Your task to perform on an android device: turn off location Image 0: 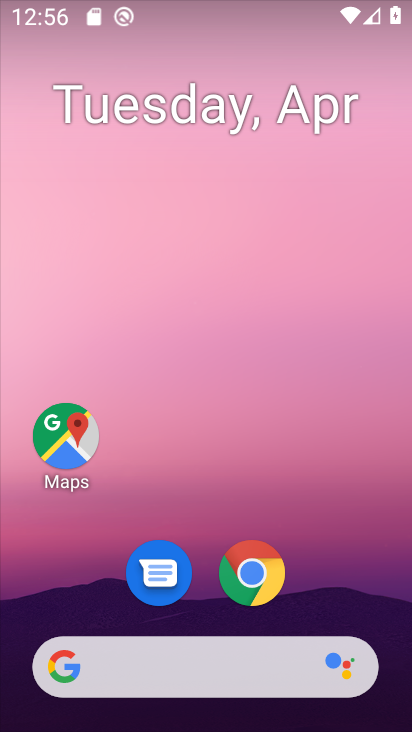
Step 0: drag from (195, 518) to (289, 101)
Your task to perform on an android device: turn off location Image 1: 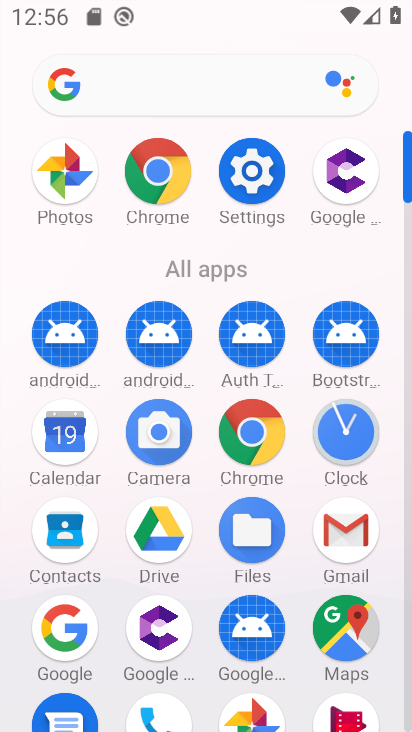
Step 1: click (249, 171)
Your task to perform on an android device: turn off location Image 2: 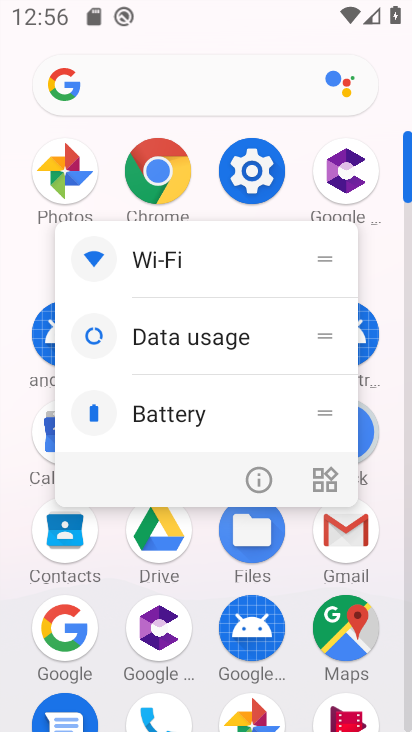
Step 2: click (256, 170)
Your task to perform on an android device: turn off location Image 3: 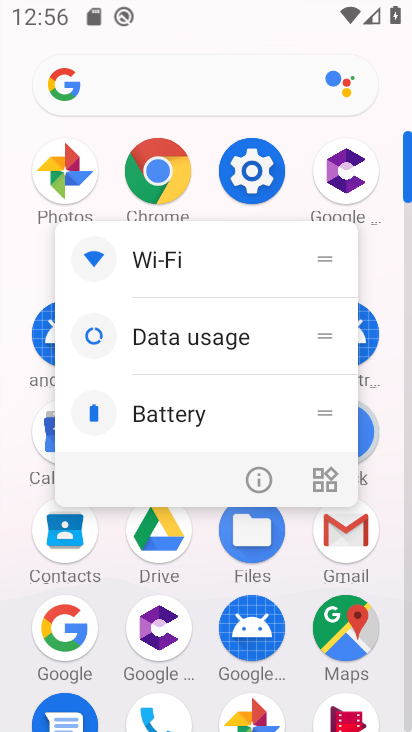
Step 3: click (264, 185)
Your task to perform on an android device: turn off location Image 4: 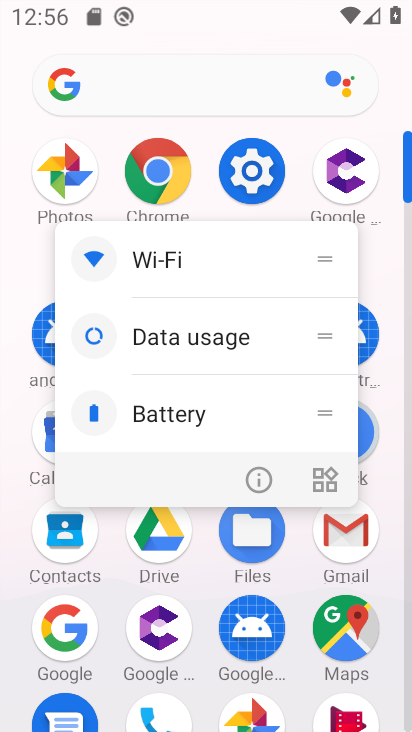
Step 4: click (247, 192)
Your task to perform on an android device: turn off location Image 5: 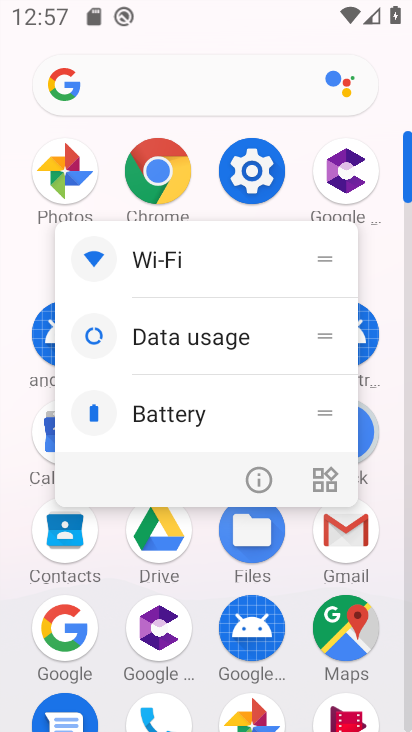
Step 5: click (257, 140)
Your task to perform on an android device: turn off location Image 6: 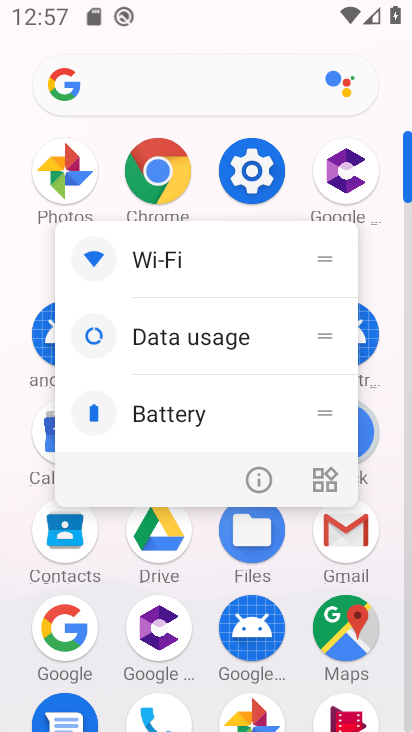
Step 6: click (231, 144)
Your task to perform on an android device: turn off location Image 7: 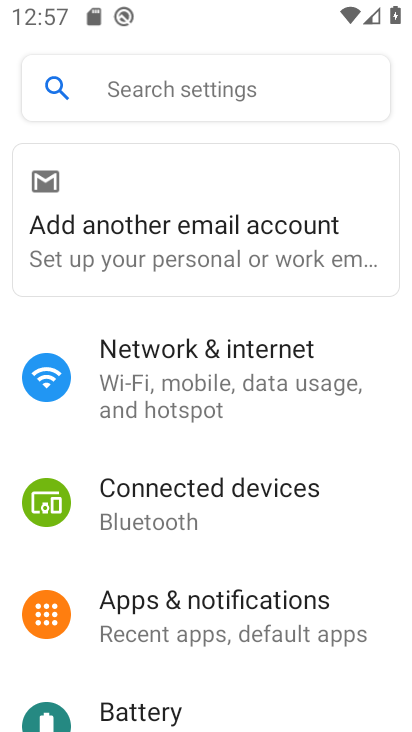
Step 7: drag from (188, 628) to (373, 139)
Your task to perform on an android device: turn off location Image 8: 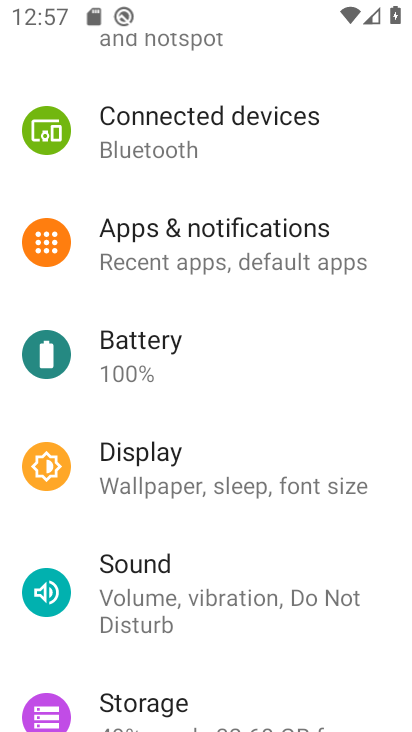
Step 8: drag from (201, 562) to (317, 219)
Your task to perform on an android device: turn off location Image 9: 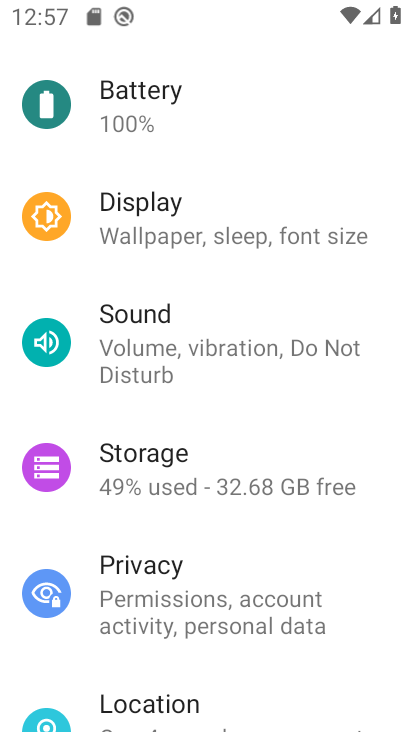
Step 9: click (155, 691)
Your task to perform on an android device: turn off location Image 10: 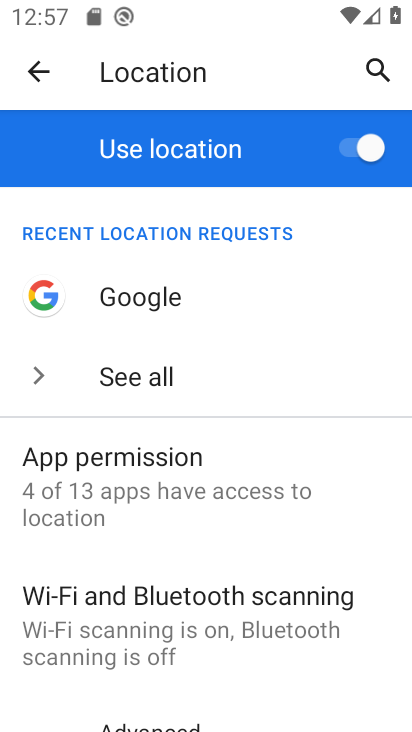
Step 10: click (348, 146)
Your task to perform on an android device: turn off location Image 11: 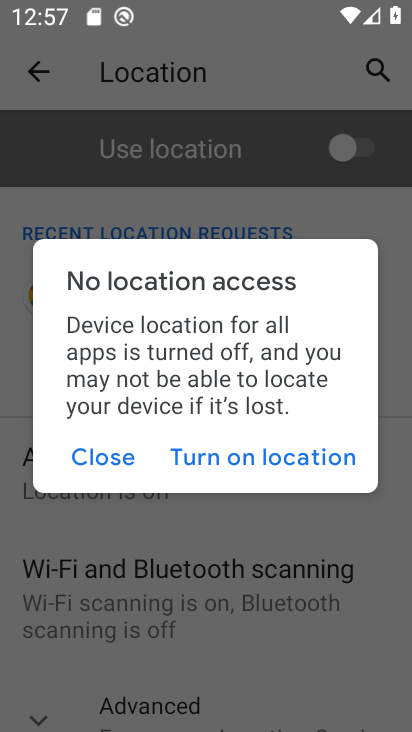
Step 11: task complete